Your task to perform on an android device: turn notification dots on Image 0: 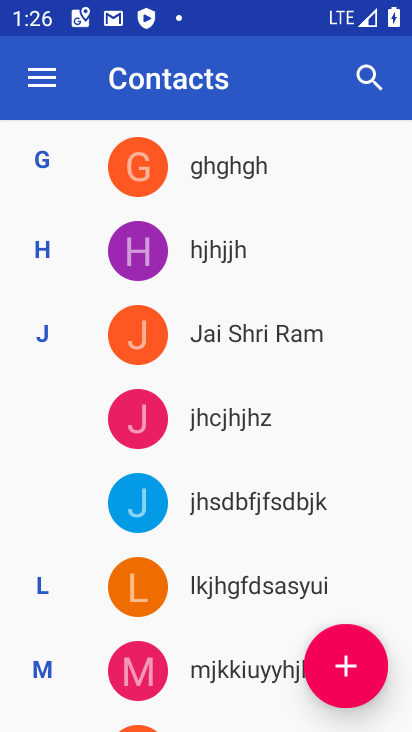
Step 0: press home button
Your task to perform on an android device: turn notification dots on Image 1: 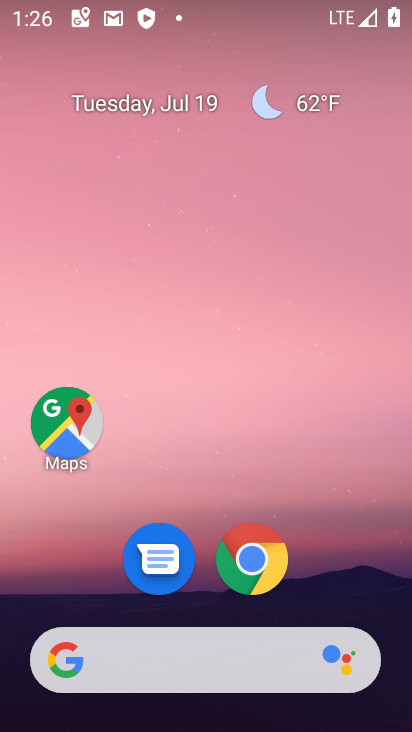
Step 1: drag from (233, 653) to (402, 479)
Your task to perform on an android device: turn notification dots on Image 2: 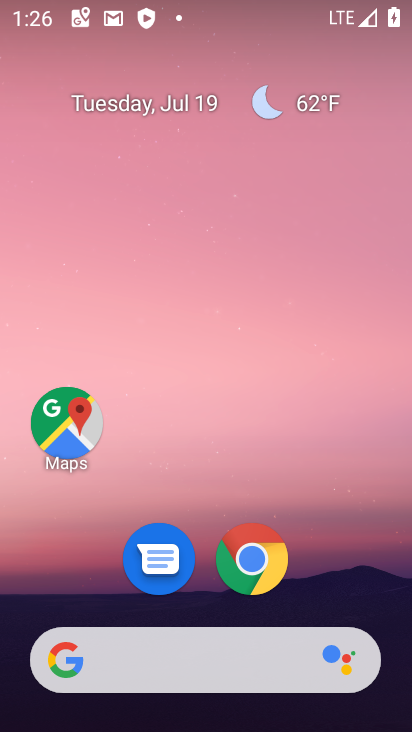
Step 2: drag from (257, 637) to (354, 0)
Your task to perform on an android device: turn notification dots on Image 3: 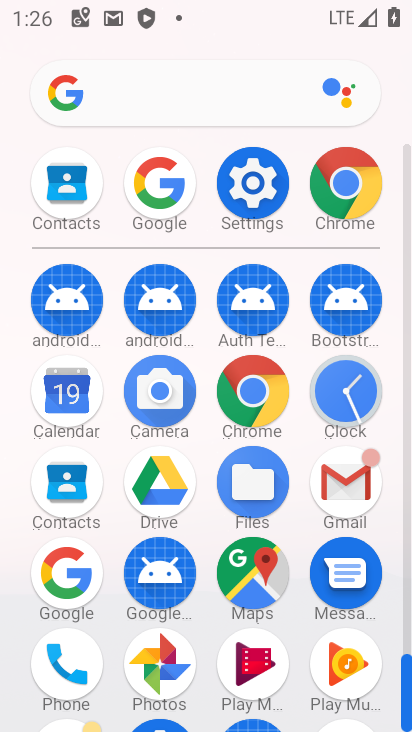
Step 3: click (264, 188)
Your task to perform on an android device: turn notification dots on Image 4: 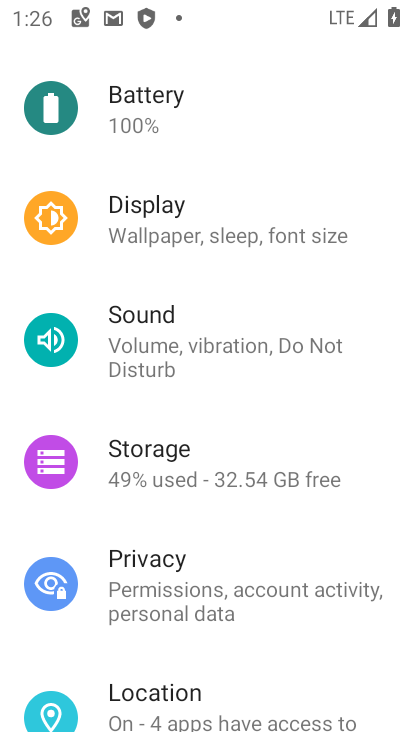
Step 4: drag from (235, 351) to (218, 589)
Your task to perform on an android device: turn notification dots on Image 5: 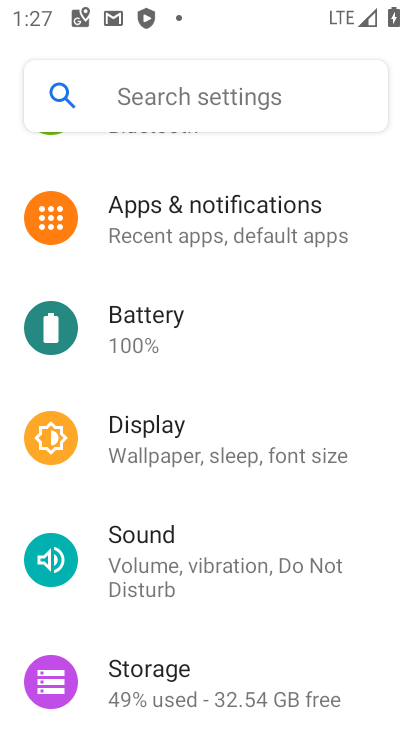
Step 5: click (200, 241)
Your task to perform on an android device: turn notification dots on Image 6: 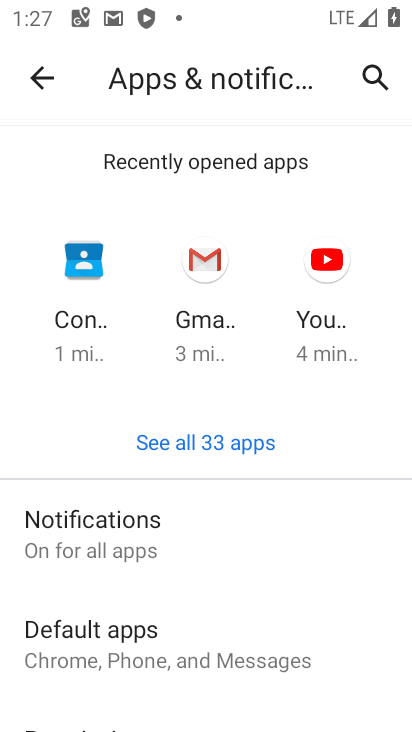
Step 6: click (198, 529)
Your task to perform on an android device: turn notification dots on Image 7: 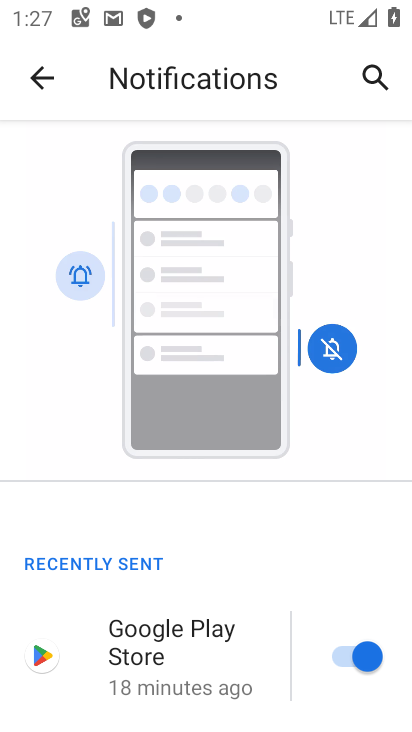
Step 7: drag from (247, 614) to (345, 65)
Your task to perform on an android device: turn notification dots on Image 8: 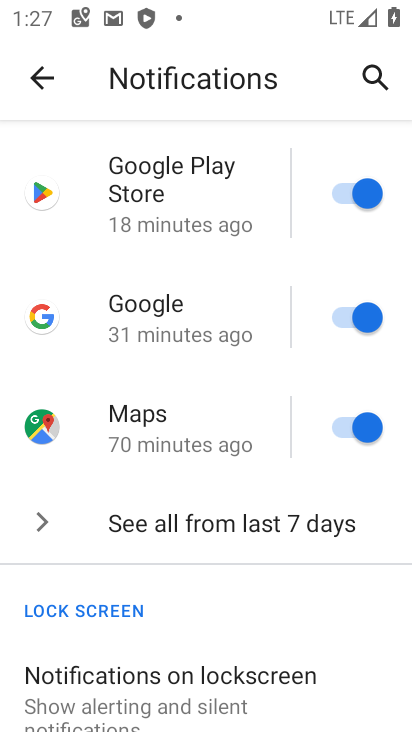
Step 8: drag from (152, 554) to (254, 185)
Your task to perform on an android device: turn notification dots on Image 9: 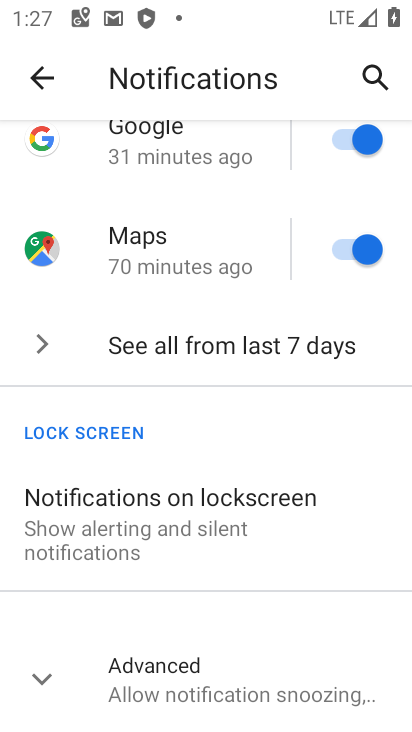
Step 9: click (128, 669)
Your task to perform on an android device: turn notification dots on Image 10: 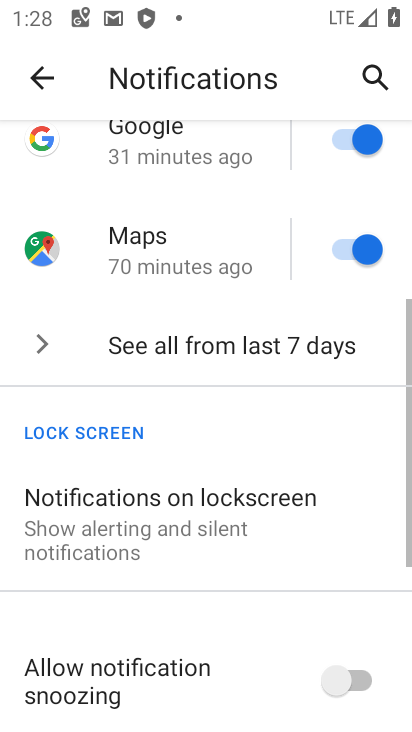
Step 10: task complete